Your task to perform on an android device: open chrome and create a bookmark for the current page Image 0: 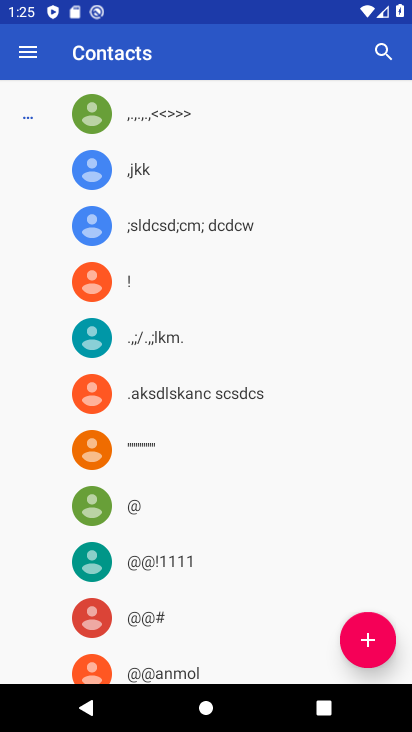
Step 0: press home button
Your task to perform on an android device: open chrome and create a bookmark for the current page Image 1: 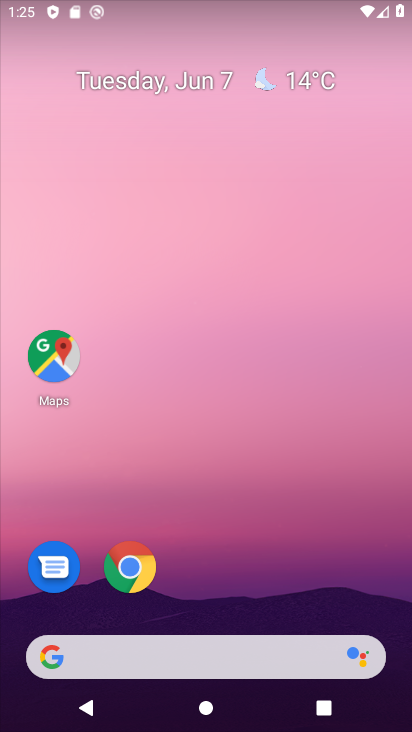
Step 1: drag from (277, 572) to (375, 0)
Your task to perform on an android device: open chrome and create a bookmark for the current page Image 2: 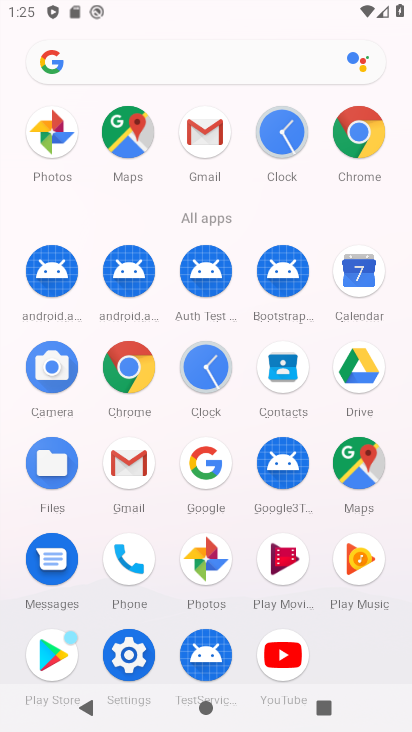
Step 2: click (384, 175)
Your task to perform on an android device: open chrome and create a bookmark for the current page Image 3: 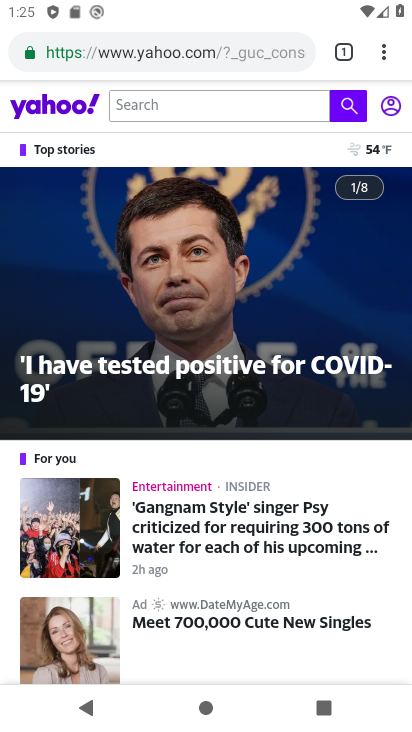
Step 3: drag from (394, 56) to (211, 203)
Your task to perform on an android device: open chrome and create a bookmark for the current page Image 4: 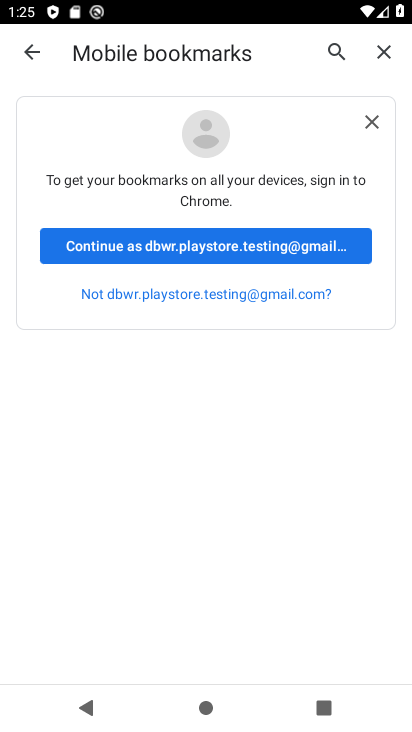
Step 4: click (232, 256)
Your task to perform on an android device: open chrome and create a bookmark for the current page Image 5: 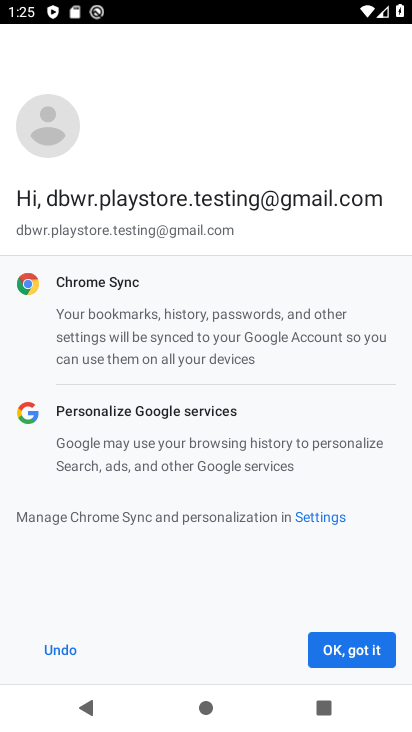
Step 5: click (371, 669)
Your task to perform on an android device: open chrome and create a bookmark for the current page Image 6: 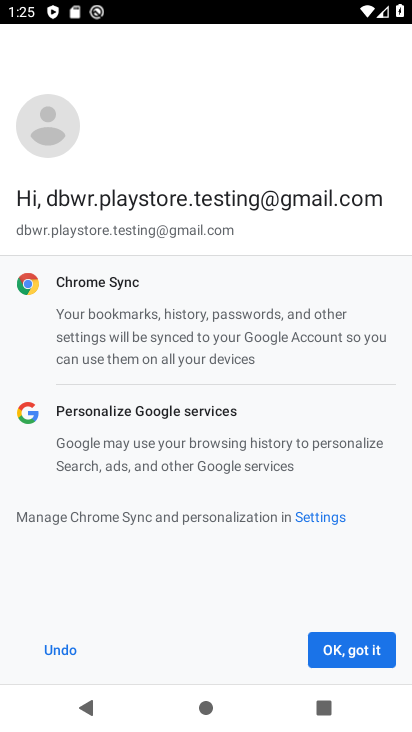
Step 6: click (367, 646)
Your task to perform on an android device: open chrome and create a bookmark for the current page Image 7: 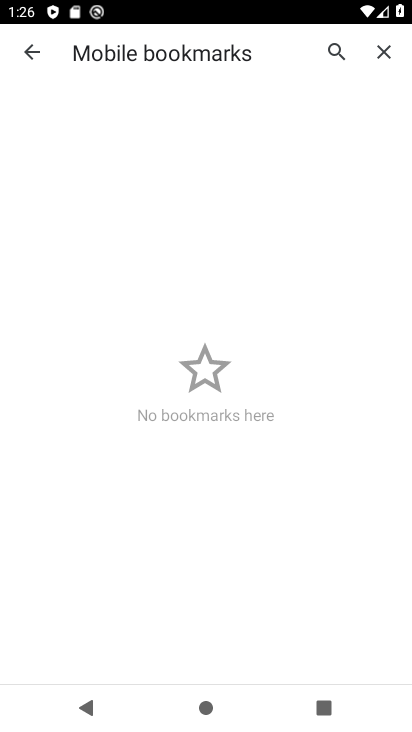
Step 7: click (37, 48)
Your task to perform on an android device: open chrome and create a bookmark for the current page Image 8: 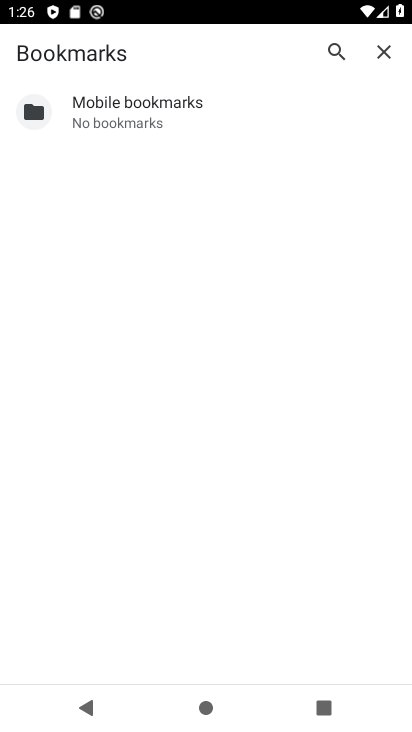
Step 8: click (393, 54)
Your task to perform on an android device: open chrome and create a bookmark for the current page Image 9: 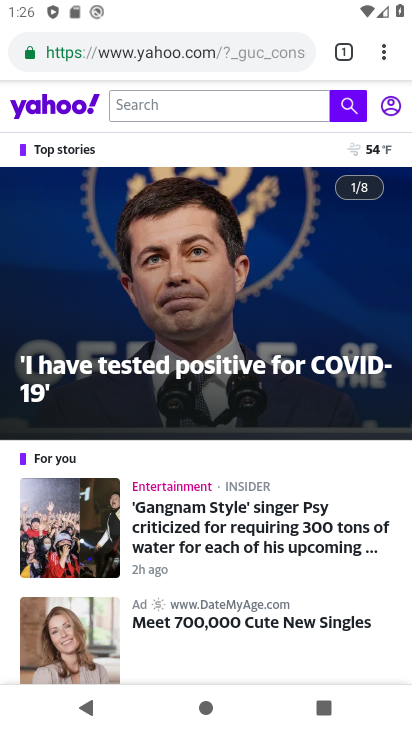
Step 9: task complete